Your task to perform on an android device: Go to calendar. Show me events next week Image 0: 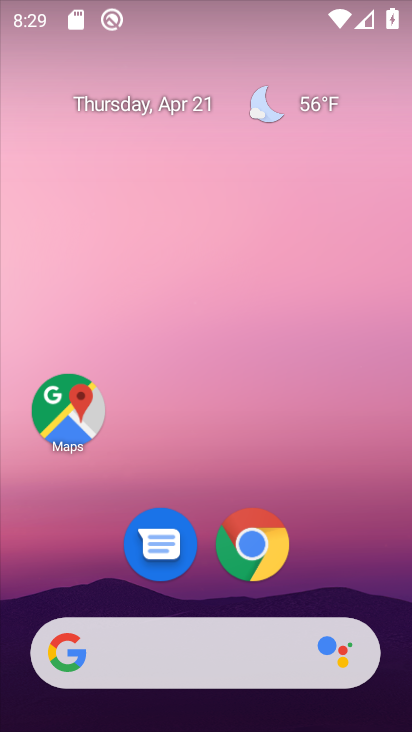
Step 0: drag from (226, 697) to (212, 125)
Your task to perform on an android device: Go to calendar. Show me events next week Image 1: 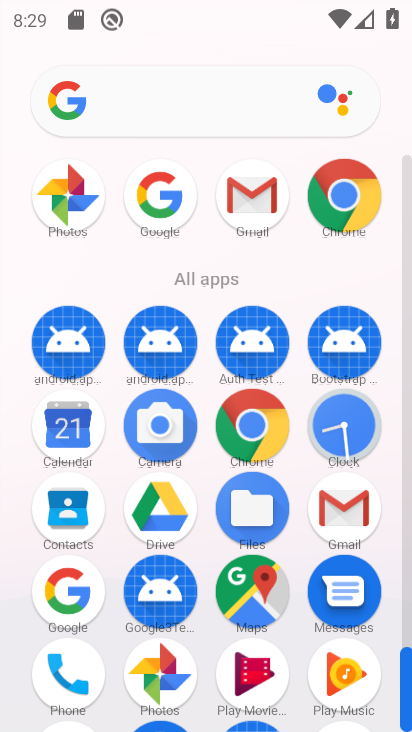
Step 1: click (72, 430)
Your task to perform on an android device: Go to calendar. Show me events next week Image 2: 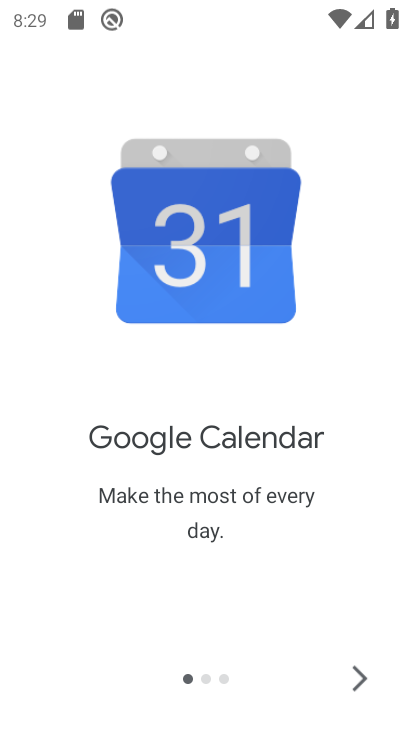
Step 2: click (362, 683)
Your task to perform on an android device: Go to calendar. Show me events next week Image 3: 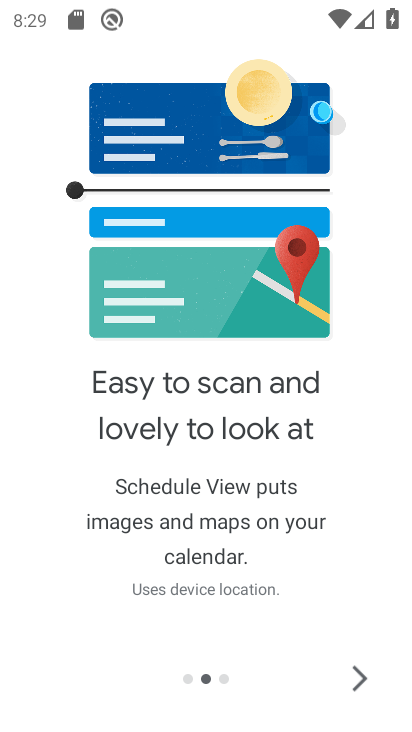
Step 3: click (362, 682)
Your task to perform on an android device: Go to calendar. Show me events next week Image 4: 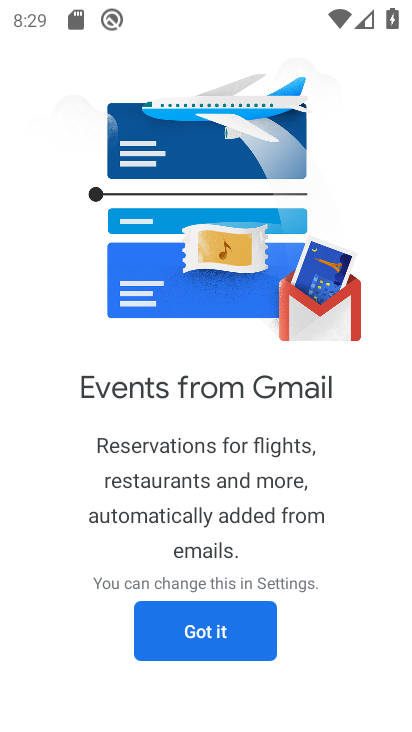
Step 4: click (205, 630)
Your task to perform on an android device: Go to calendar. Show me events next week Image 5: 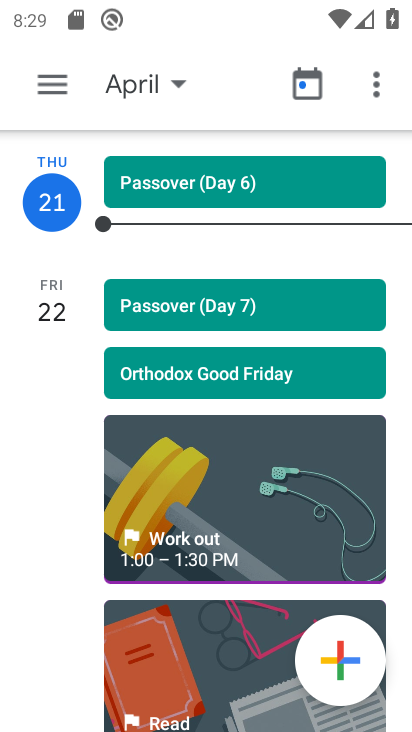
Step 5: click (53, 90)
Your task to perform on an android device: Go to calendar. Show me events next week Image 6: 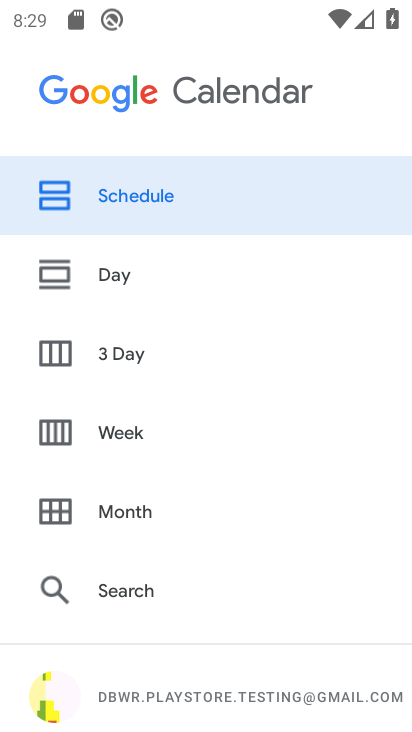
Step 6: drag from (150, 655) to (134, 165)
Your task to perform on an android device: Go to calendar. Show me events next week Image 7: 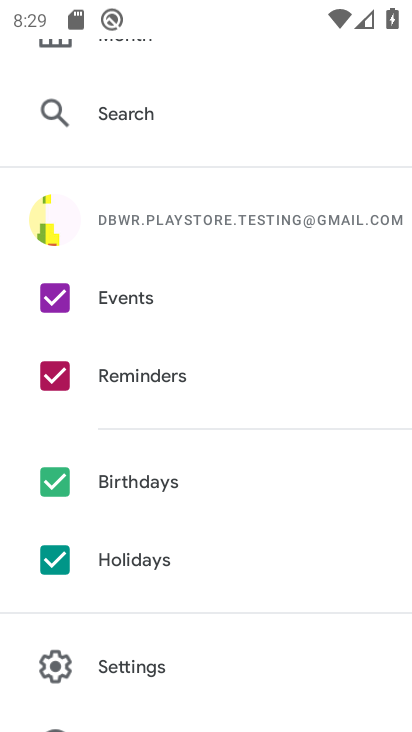
Step 7: click (61, 558)
Your task to perform on an android device: Go to calendar. Show me events next week Image 8: 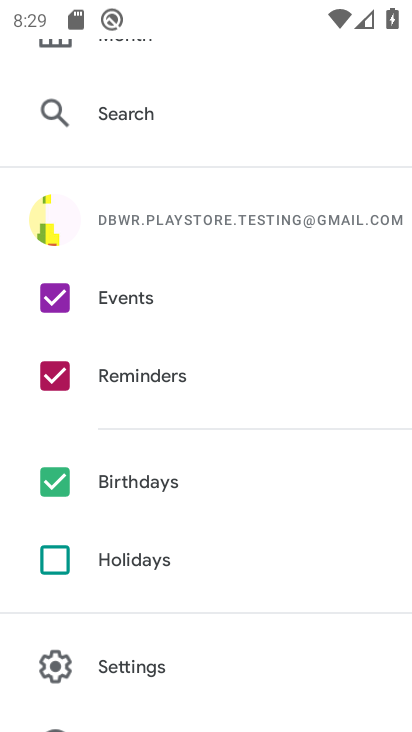
Step 8: click (49, 478)
Your task to perform on an android device: Go to calendar. Show me events next week Image 9: 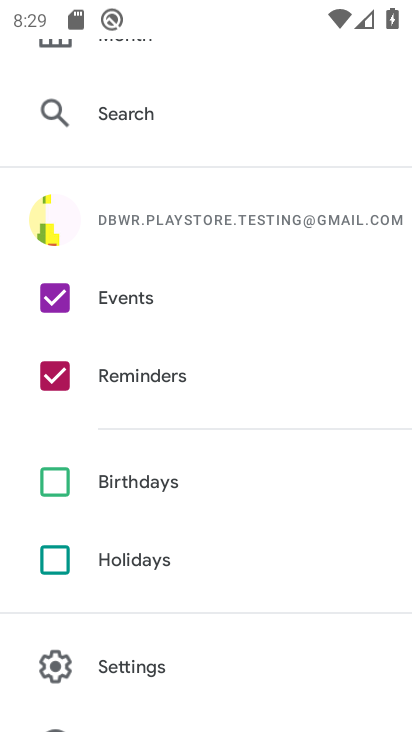
Step 9: click (53, 377)
Your task to perform on an android device: Go to calendar. Show me events next week Image 10: 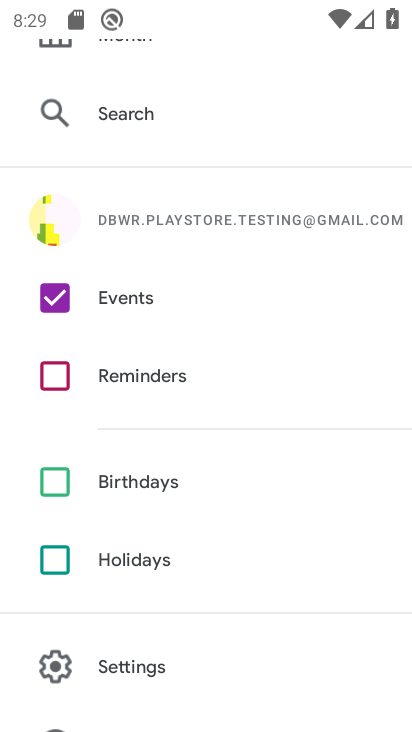
Step 10: drag from (253, 219) to (263, 601)
Your task to perform on an android device: Go to calendar. Show me events next week Image 11: 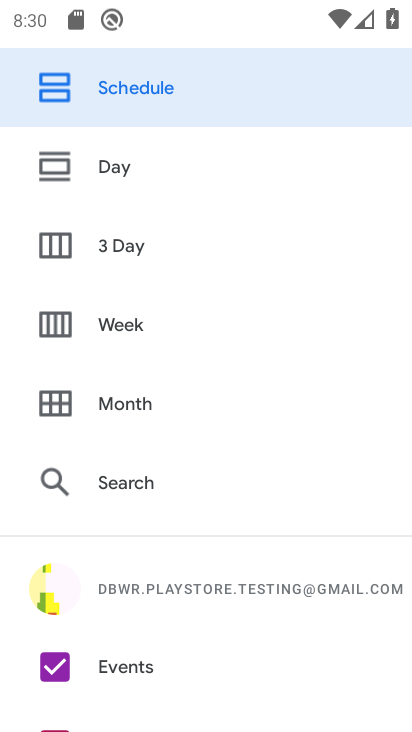
Step 11: click (109, 324)
Your task to perform on an android device: Go to calendar. Show me events next week Image 12: 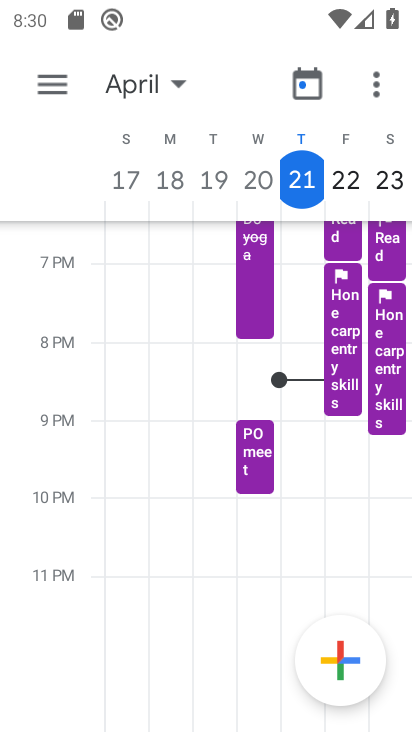
Step 12: drag from (370, 175) to (83, 186)
Your task to perform on an android device: Go to calendar. Show me events next week Image 13: 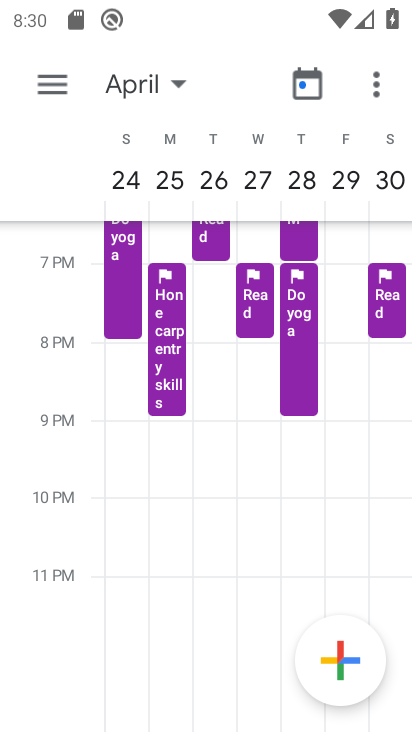
Step 13: drag from (148, 180) to (224, 179)
Your task to perform on an android device: Go to calendar. Show me events next week Image 14: 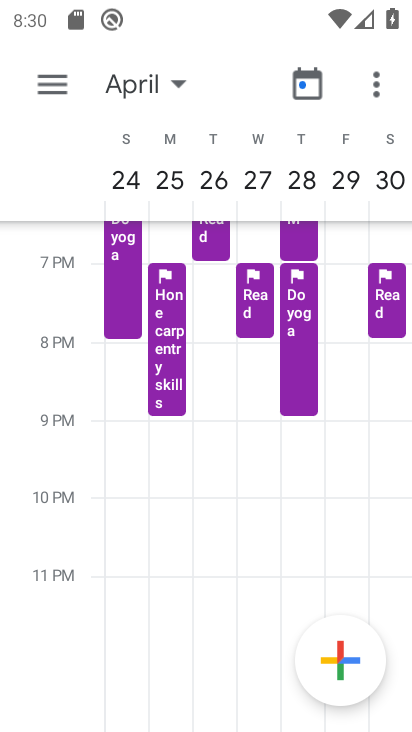
Step 14: click (221, 180)
Your task to perform on an android device: Go to calendar. Show me events next week Image 15: 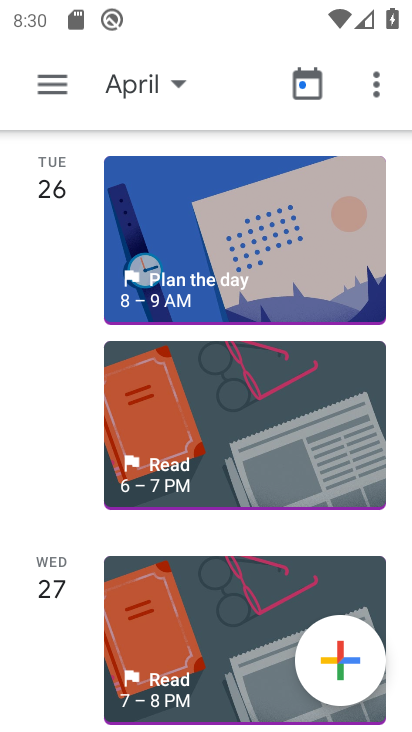
Step 15: task complete